Your task to perform on an android device: change your default location settings in chrome Image 0: 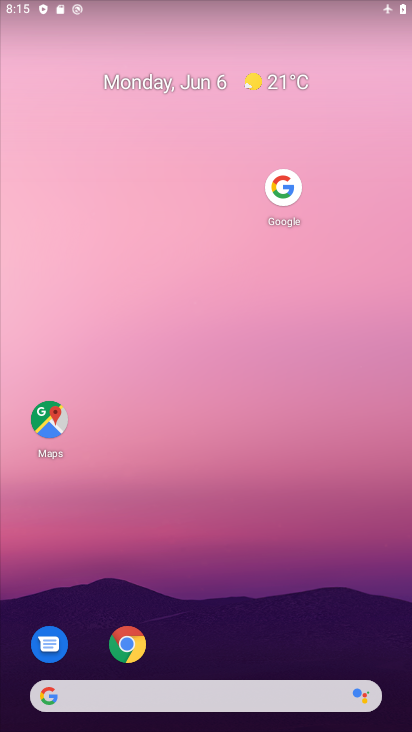
Step 0: drag from (210, 664) to (191, 131)
Your task to perform on an android device: change your default location settings in chrome Image 1: 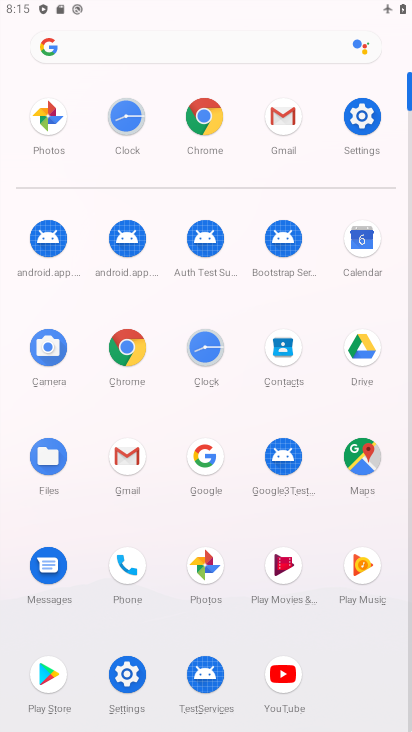
Step 1: click (213, 137)
Your task to perform on an android device: change your default location settings in chrome Image 2: 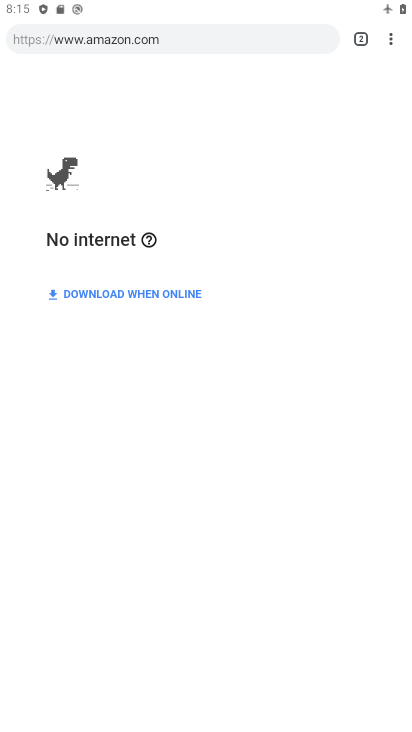
Step 2: drag from (392, 38) to (253, 420)
Your task to perform on an android device: change your default location settings in chrome Image 3: 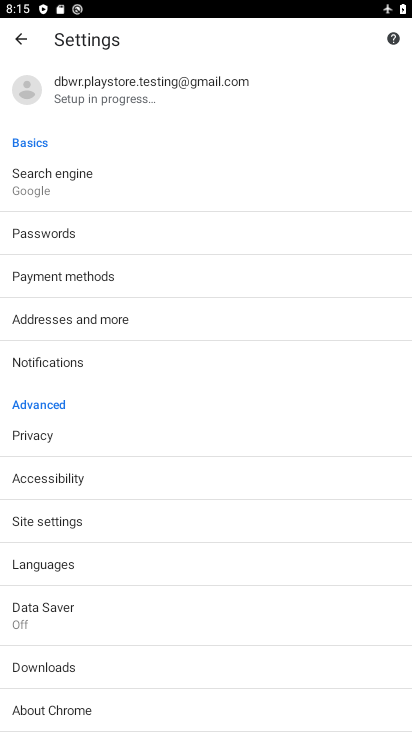
Step 3: click (58, 532)
Your task to perform on an android device: change your default location settings in chrome Image 4: 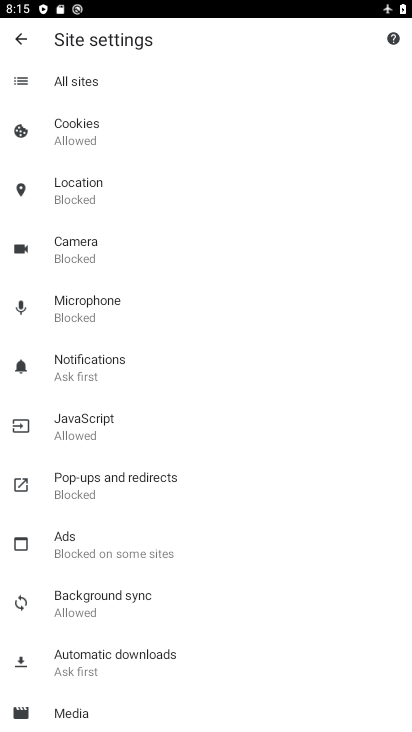
Step 4: click (96, 196)
Your task to perform on an android device: change your default location settings in chrome Image 5: 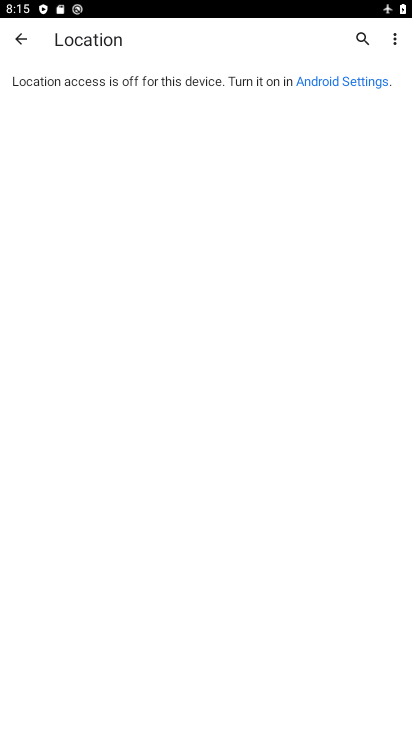
Step 5: task complete